Your task to perform on an android device: Search for a coffee table on IKEA Image 0: 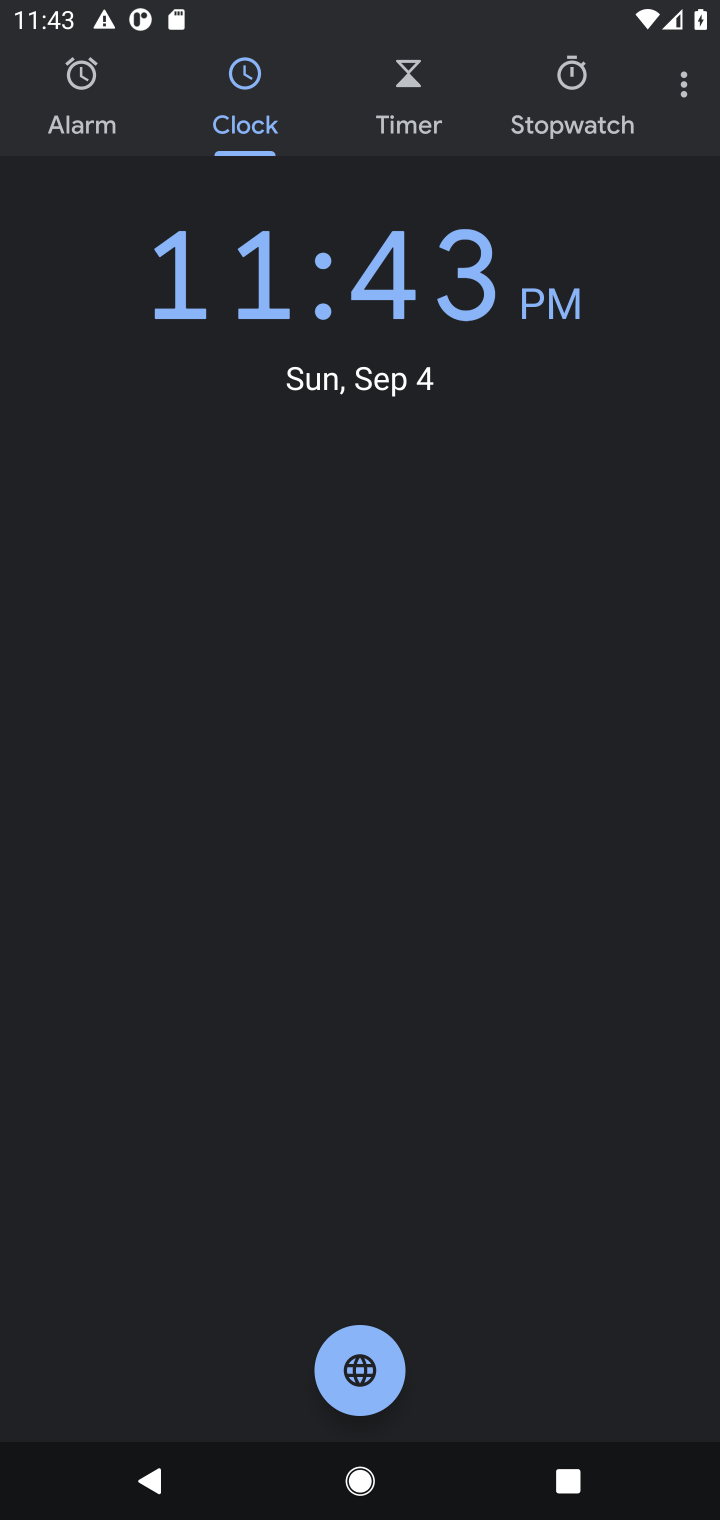
Step 0: press home button
Your task to perform on an android device: Search for a coffee table on IKEA Image 1: 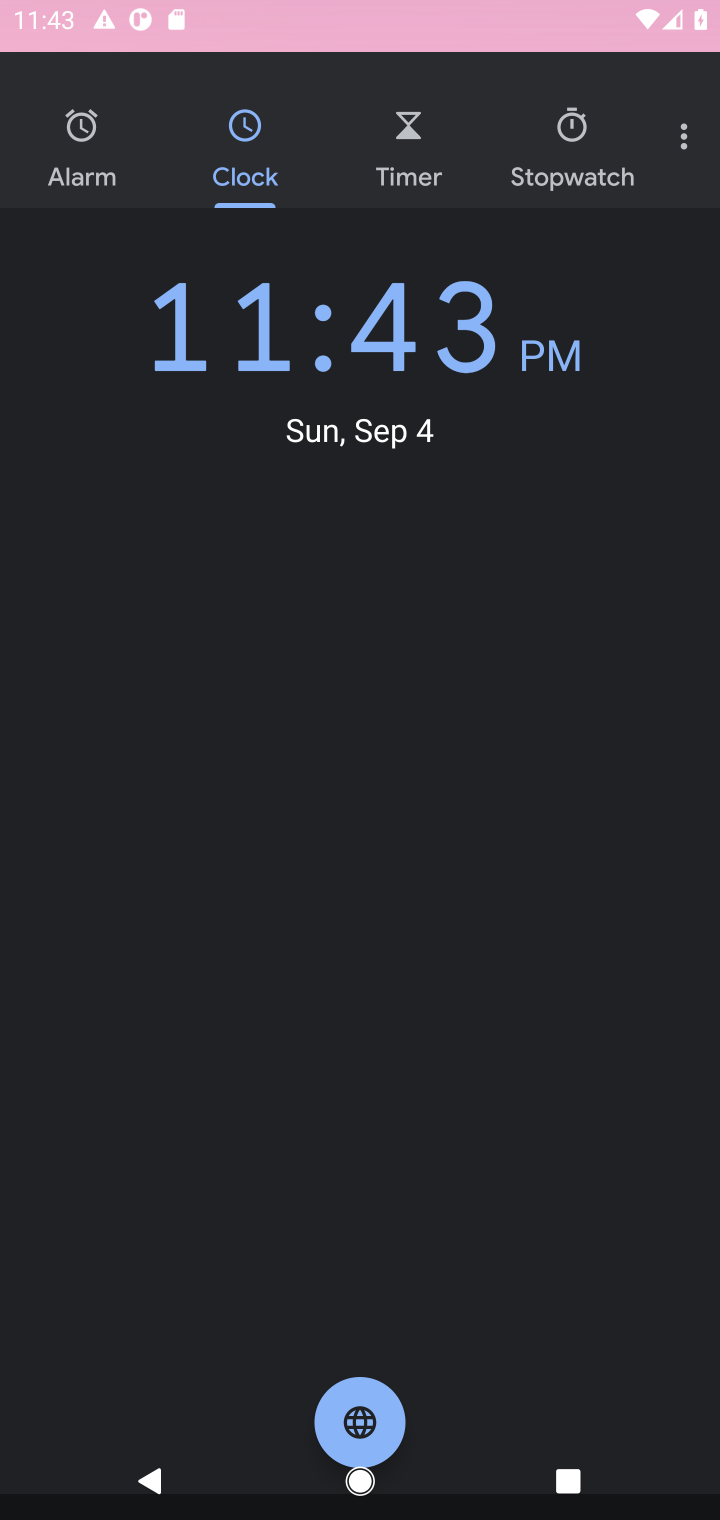
Step 1: press home button
Your task to perform on an android device: Search for a coffee table on IKEA Image 2: 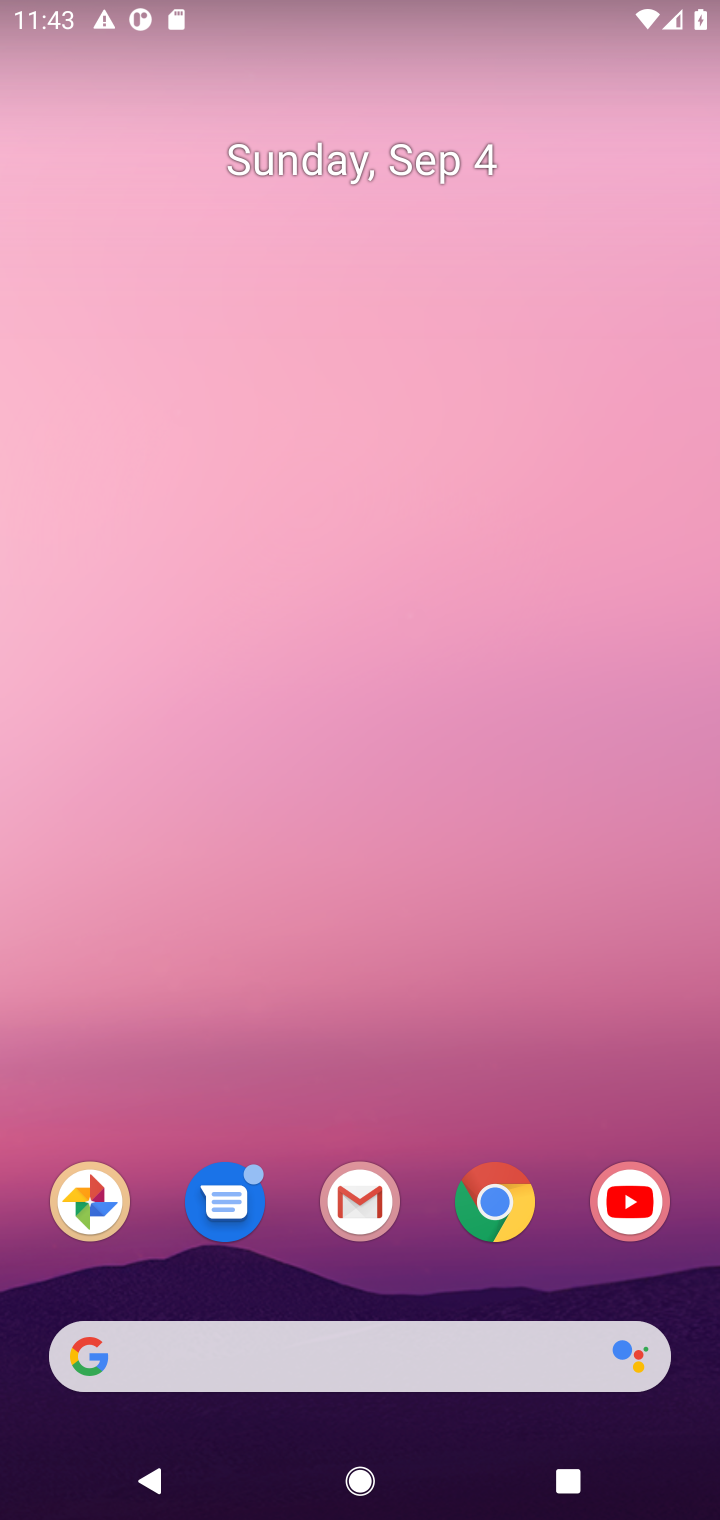
Step 2: click (469, 26)
Your task to perform on an android device: Search for a coffee table on IKEA Image 3: 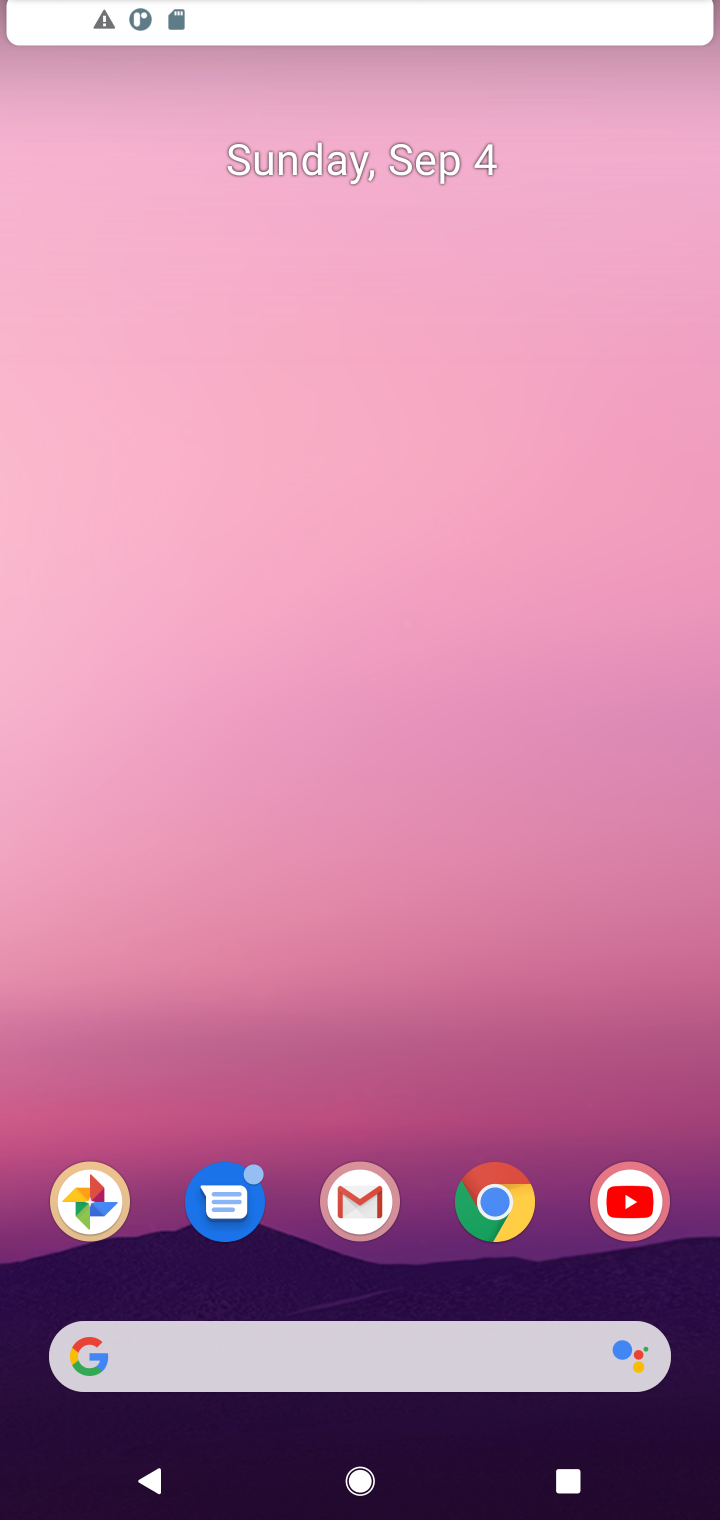
Step 3: click (432, 1284)
Your task to perform on an android device: Search for a coffee table on IKEA Image 4: 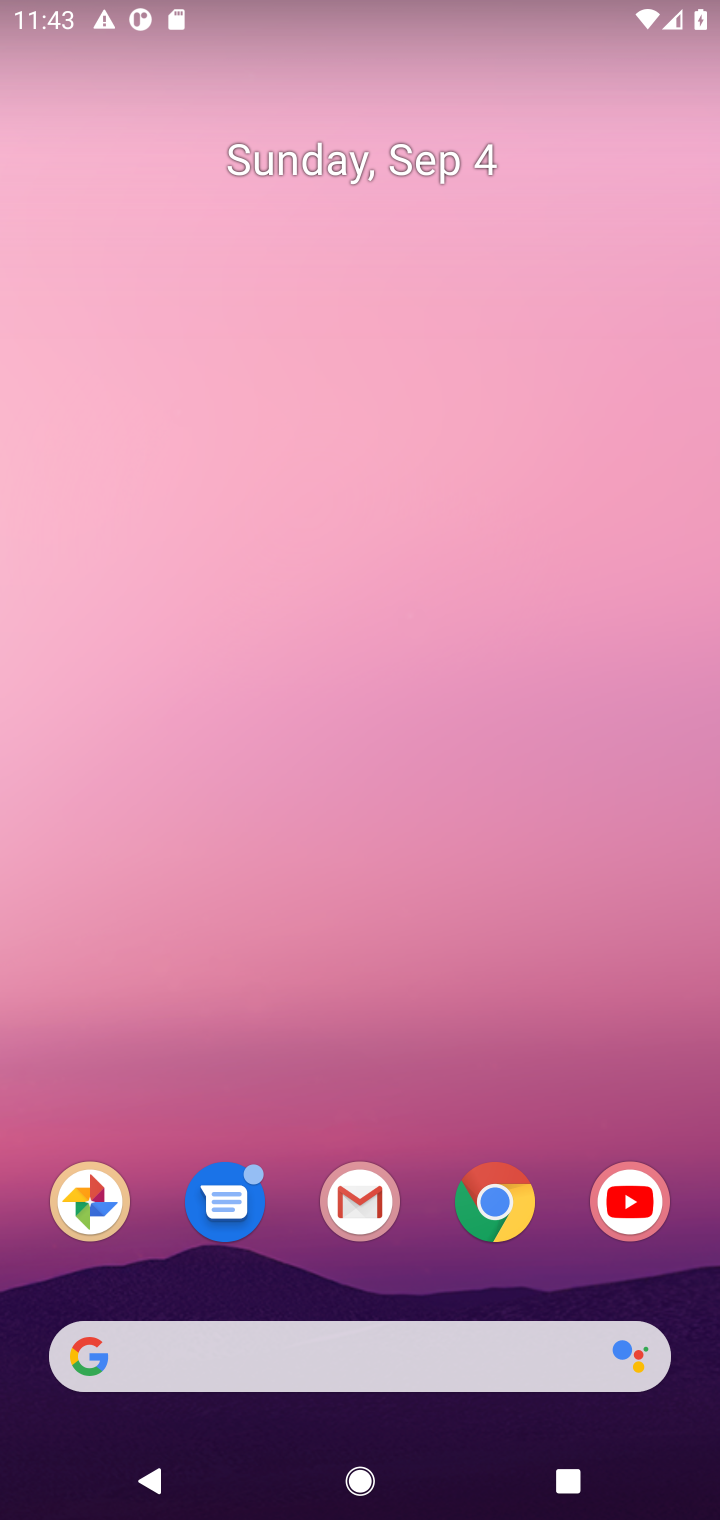
Step 4: drag from (431, 1284) to (492, 87)
Your task to perform on an android device: Search for a coffee table on IKEA Image 5: 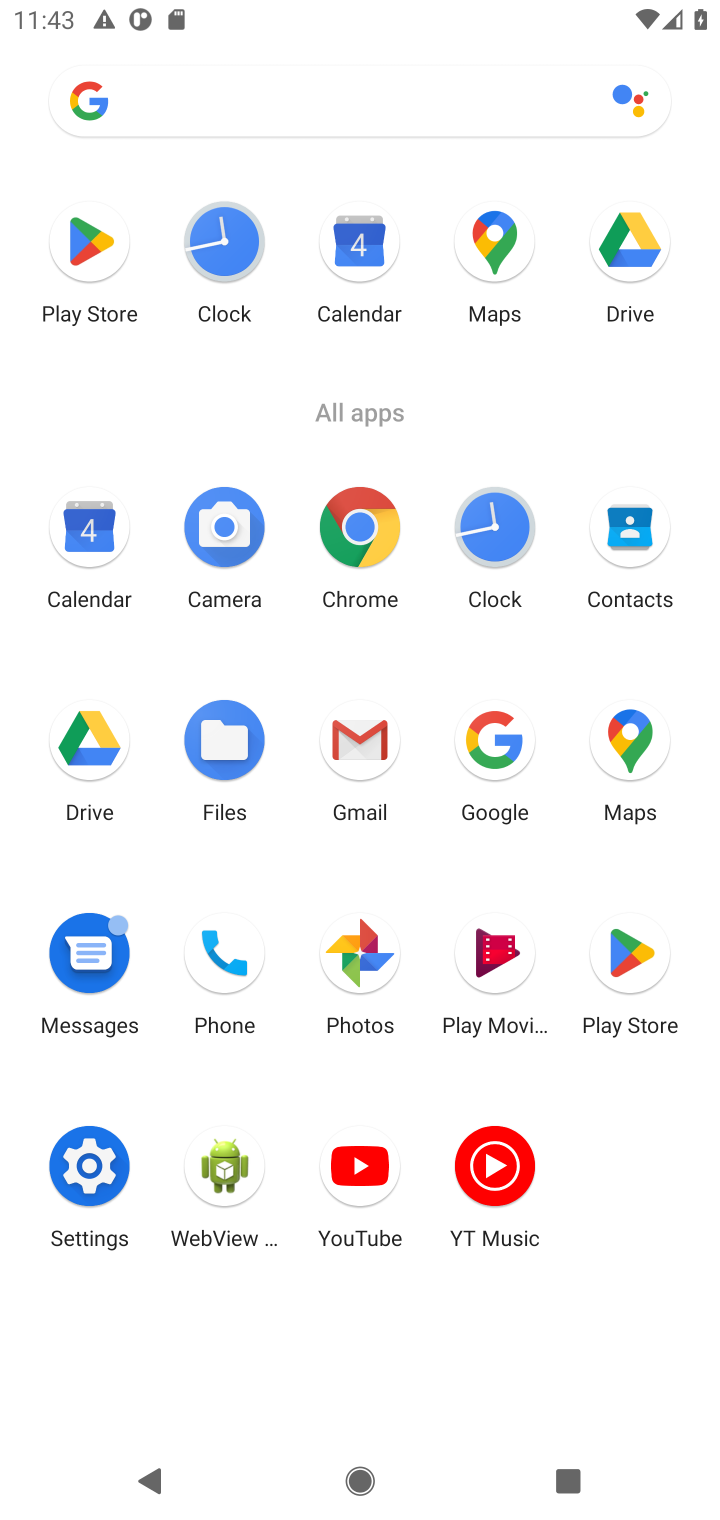
Step 5: click (358, 528)
Your task to perform on an android device: Search for a coffee table on IKEA Image 6: 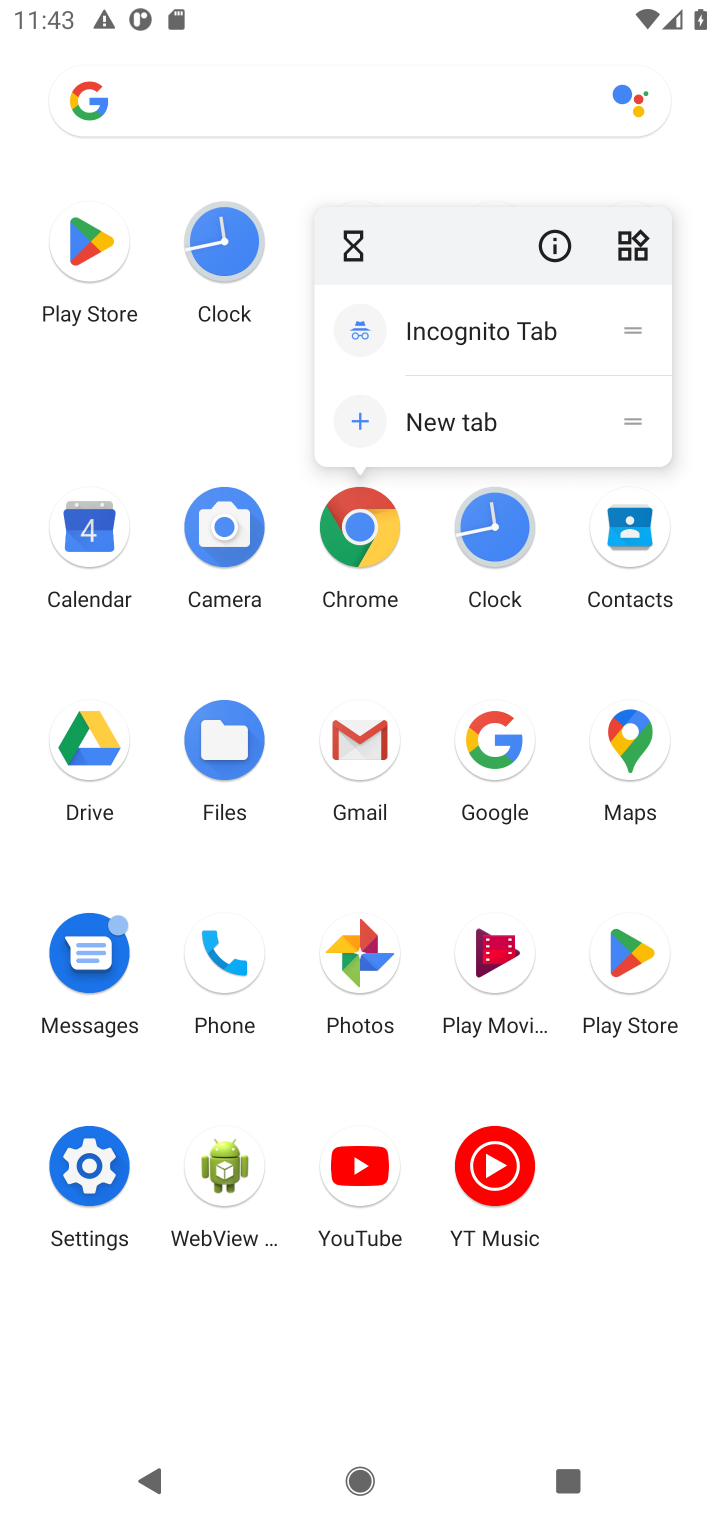
Step 6: click (355, 522)
Your task to perform on an android device: Search for a coffee table on IKEA Image 7: 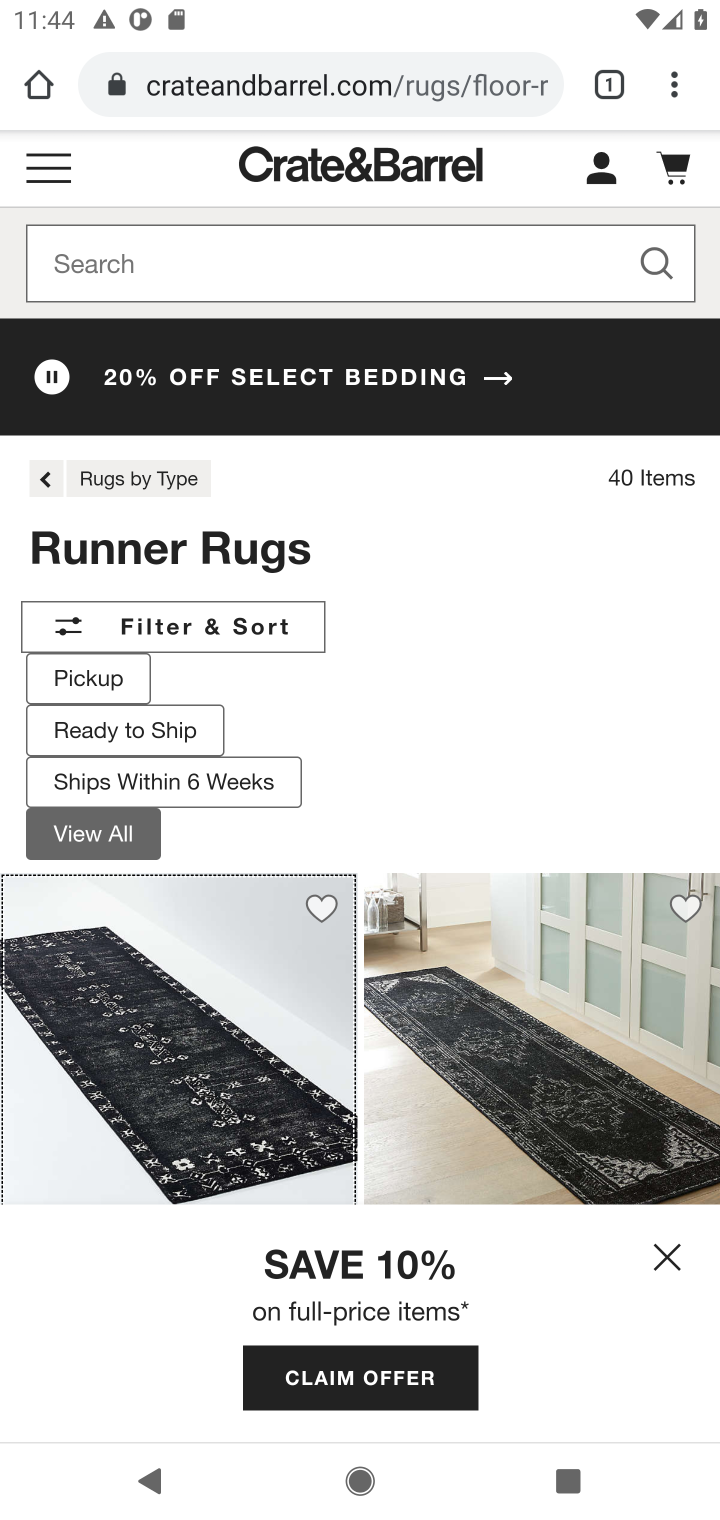
Step 7: click (382, 82)
Your task to perform on an android device: Search for a coffee table on IKEA Image 8: 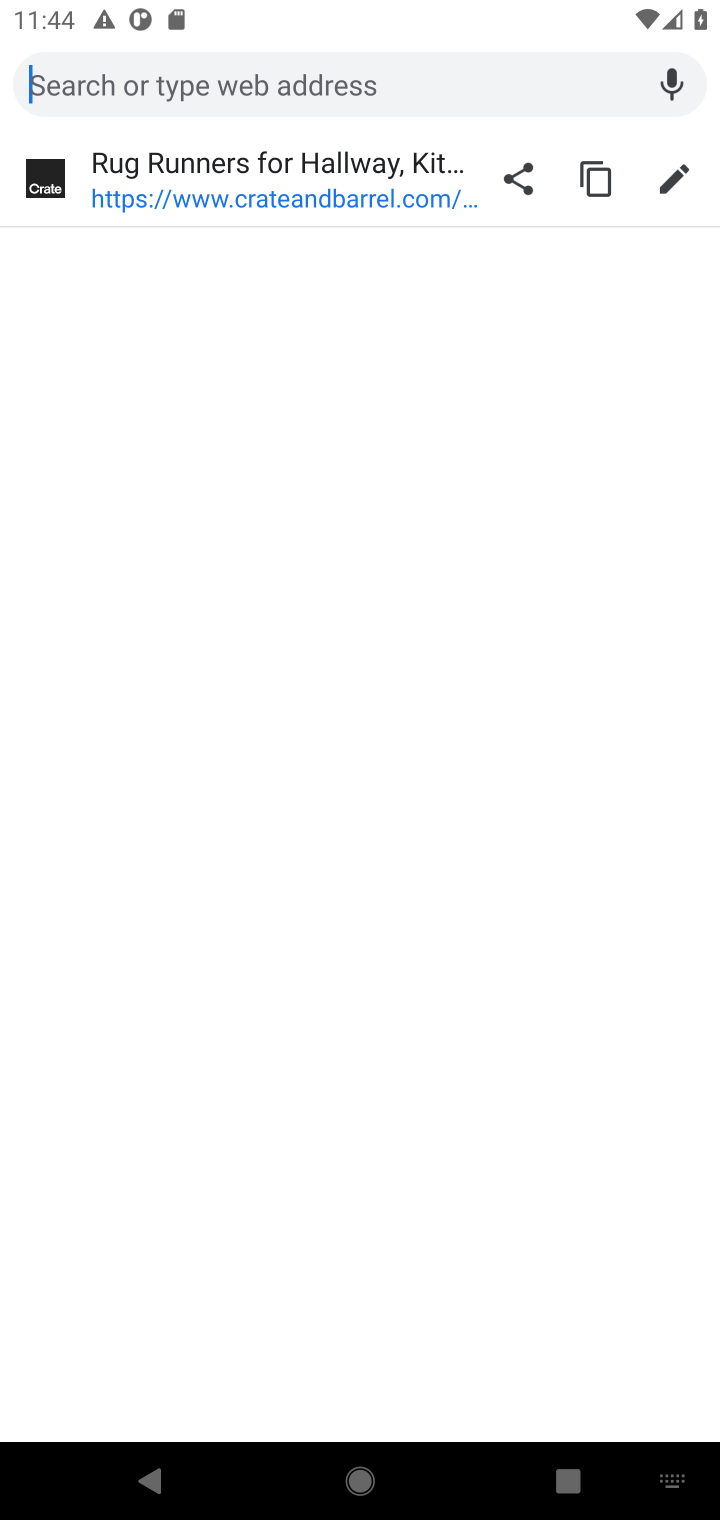
Step 8: press enter
Your task to perform on an android device: Search for a coffee table on IKEA Image 9: 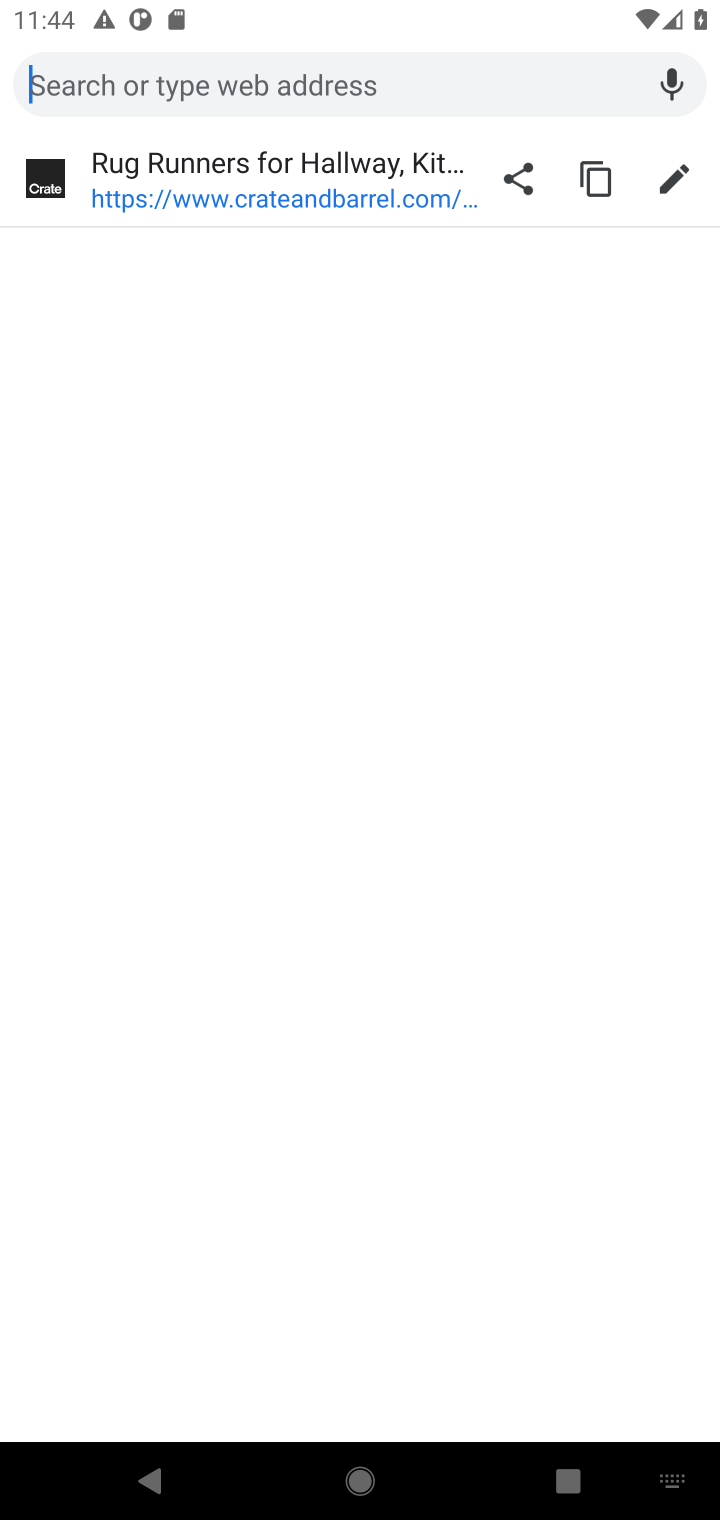
Step 9: type "a Coffee table on lKEA"
Your task to perform on an android device: Search for a coffee table on IKEA Image 10: 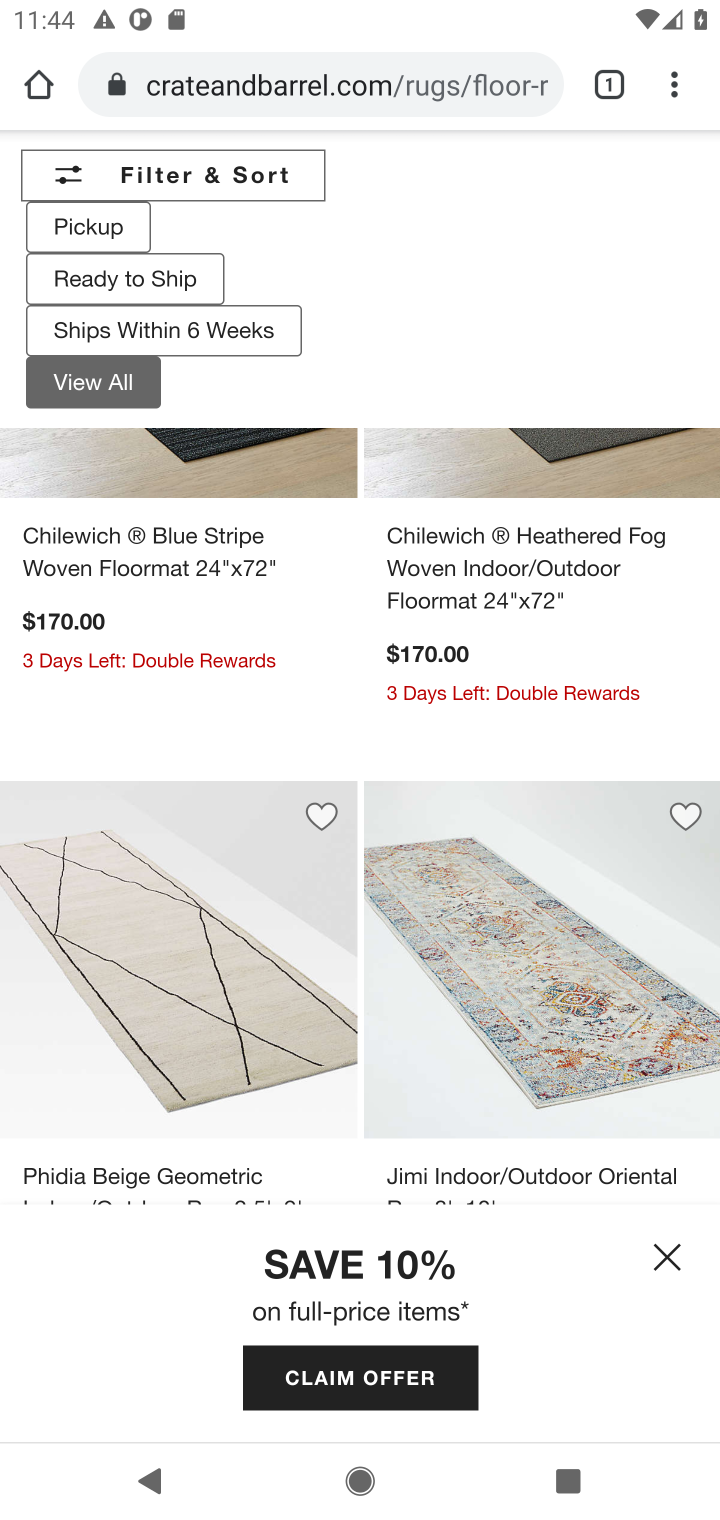
Step 10: drag from (380, 494) to (354, 1096)
Your task to perform on an android device: Search for a coffee table on IKEA Image 11: 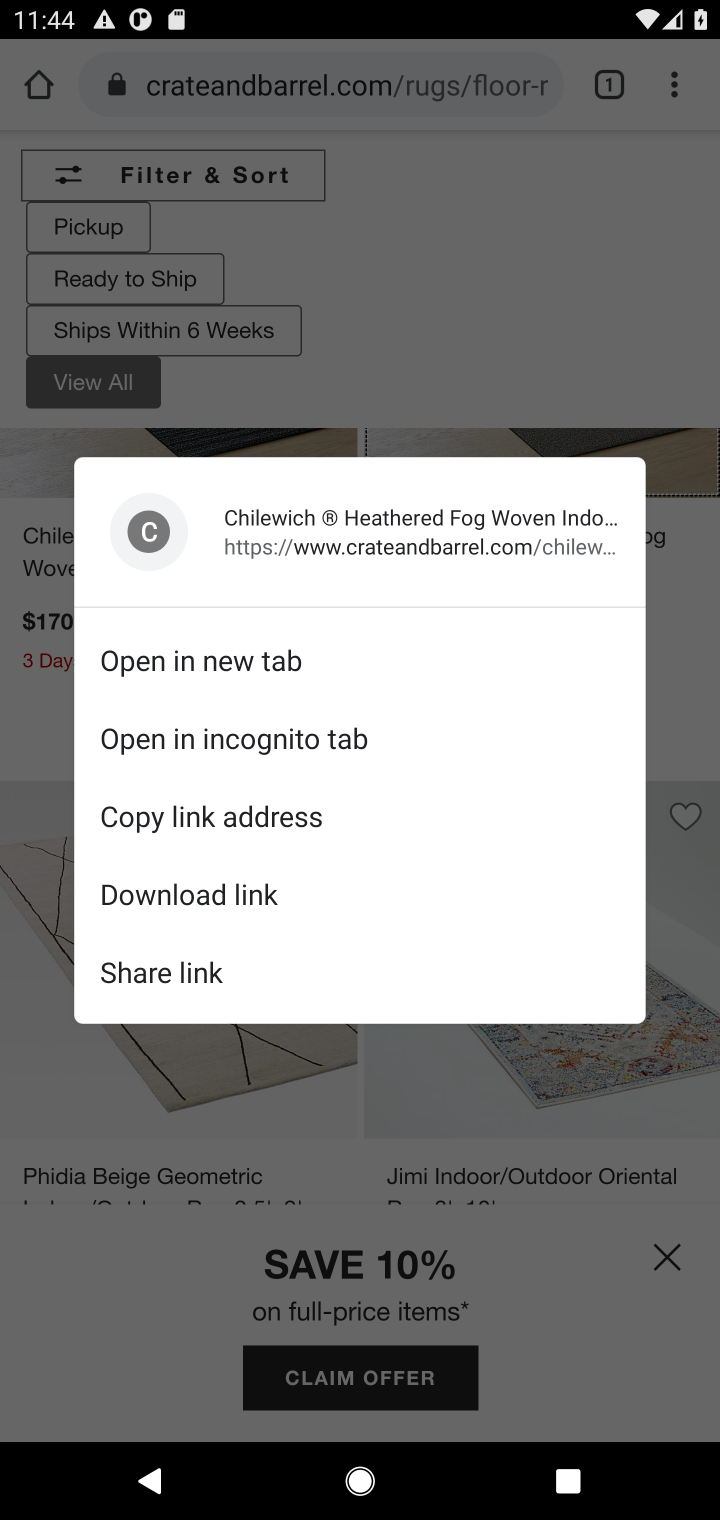
Step 11: click (395, 361)
Your task to perform on an android device: Search for a coffee table on IKEA Image 12: 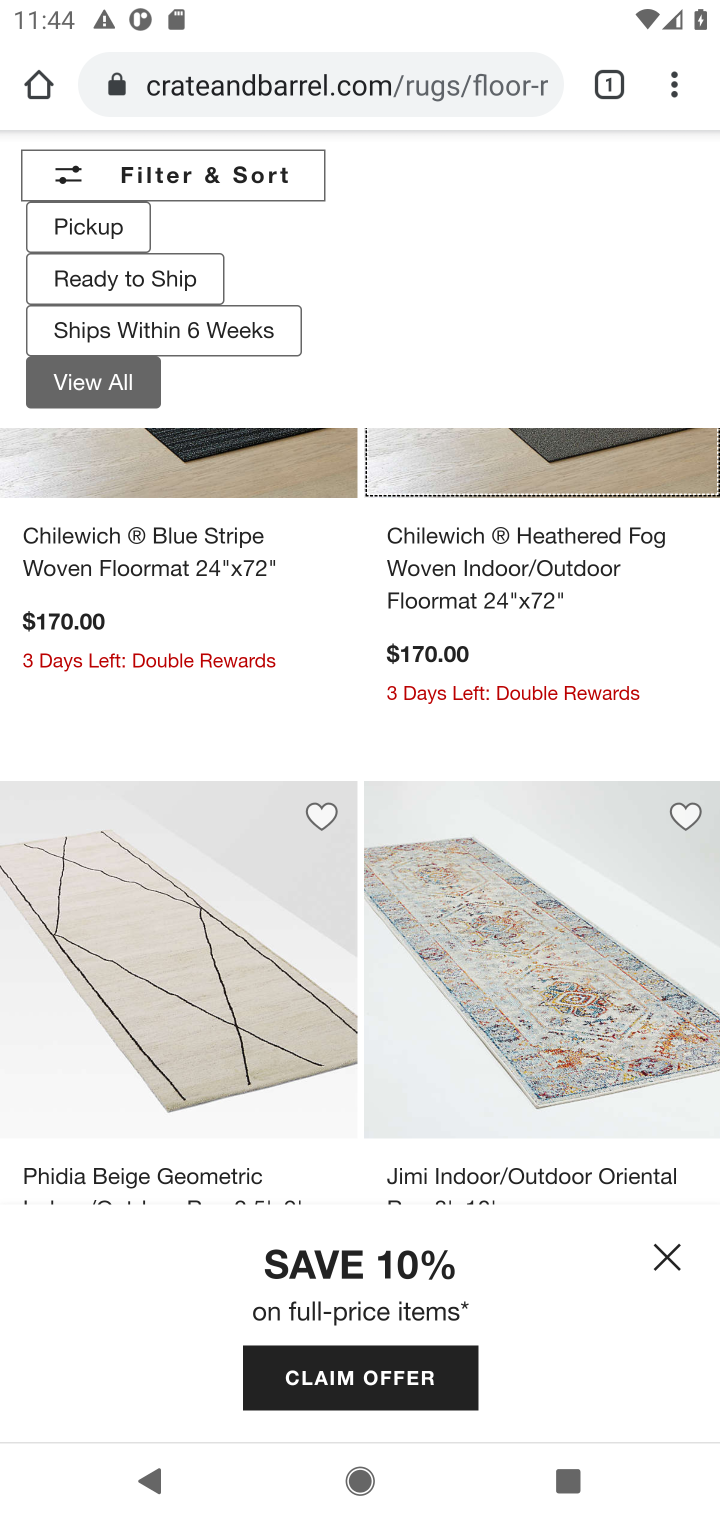
Step 12: click (408, 73)
Your task to perform on an android device: Search for a coffee table on IKEA Image 13: 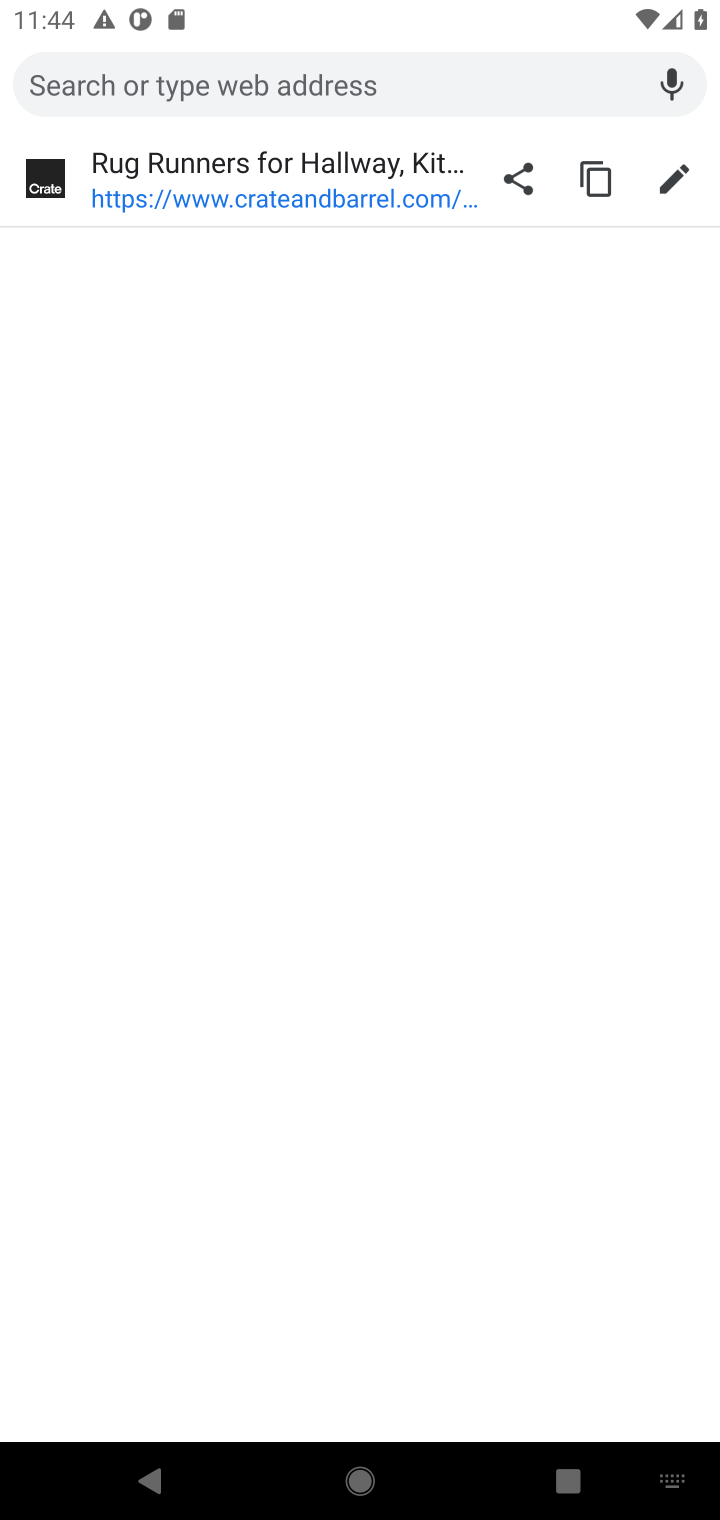
Step 13: type "A coffee table on lKEA"
Your task to perform on an android device: Search for a coffee table on IKEA Image 14: 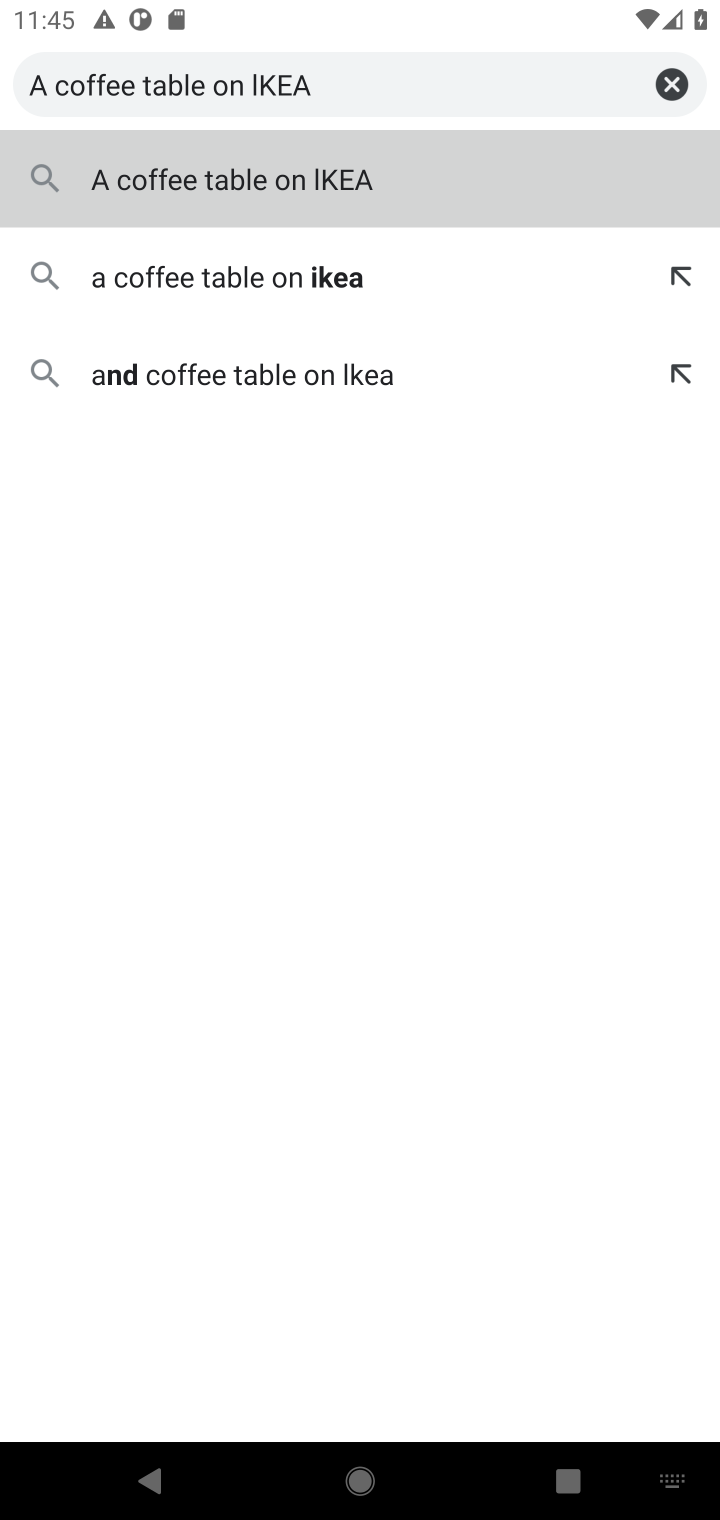
Step 14: press enter
Your task to perform on an android device: Search for a coffee table on IKEA Image 15: 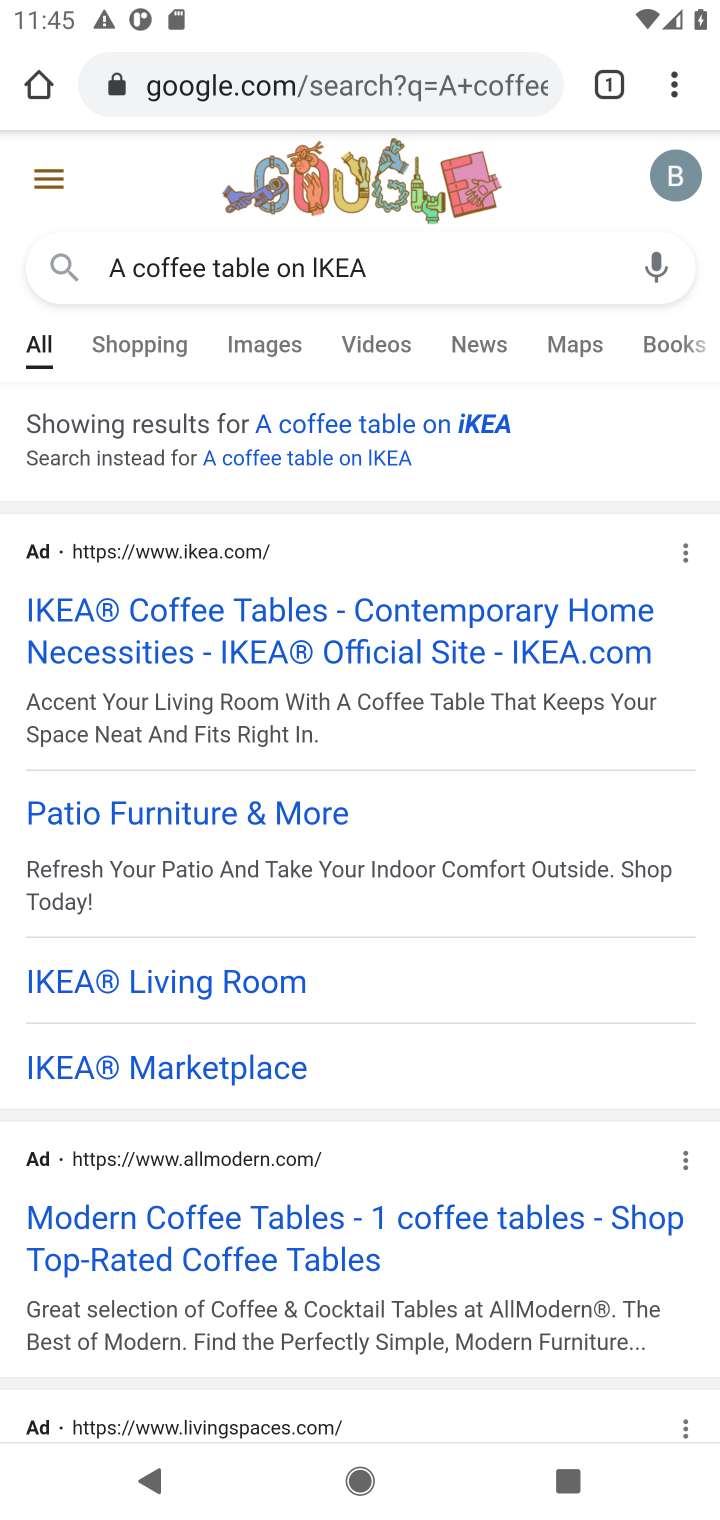
Step 15: drag from (506, 1081) to (567, 202)
Your task to perform on an android device: Search for a coffee table on IKEA Image 16: 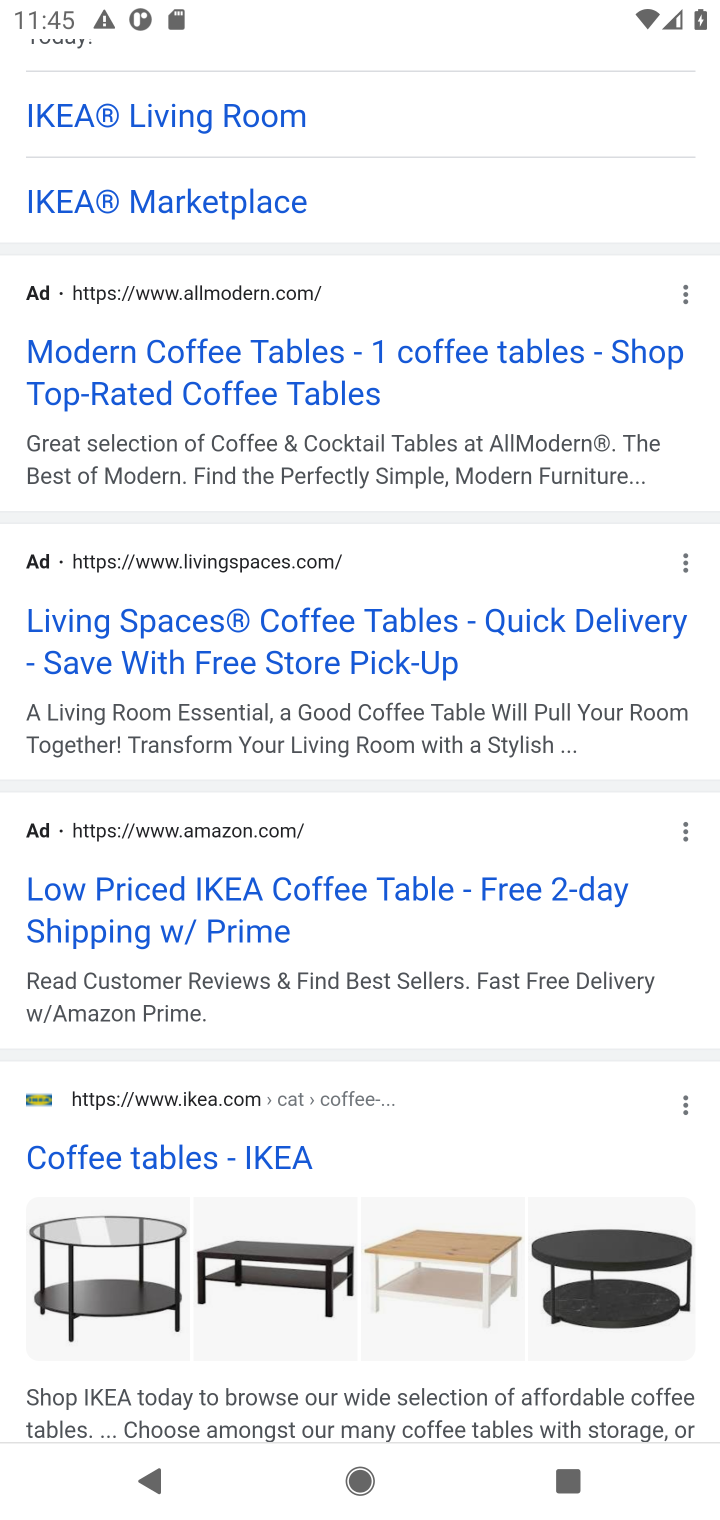
Step 16: drag from (509, 1147) to (509, 873)
Your task to perform on an android device: Search for a coffee table on IKEA Image 17: 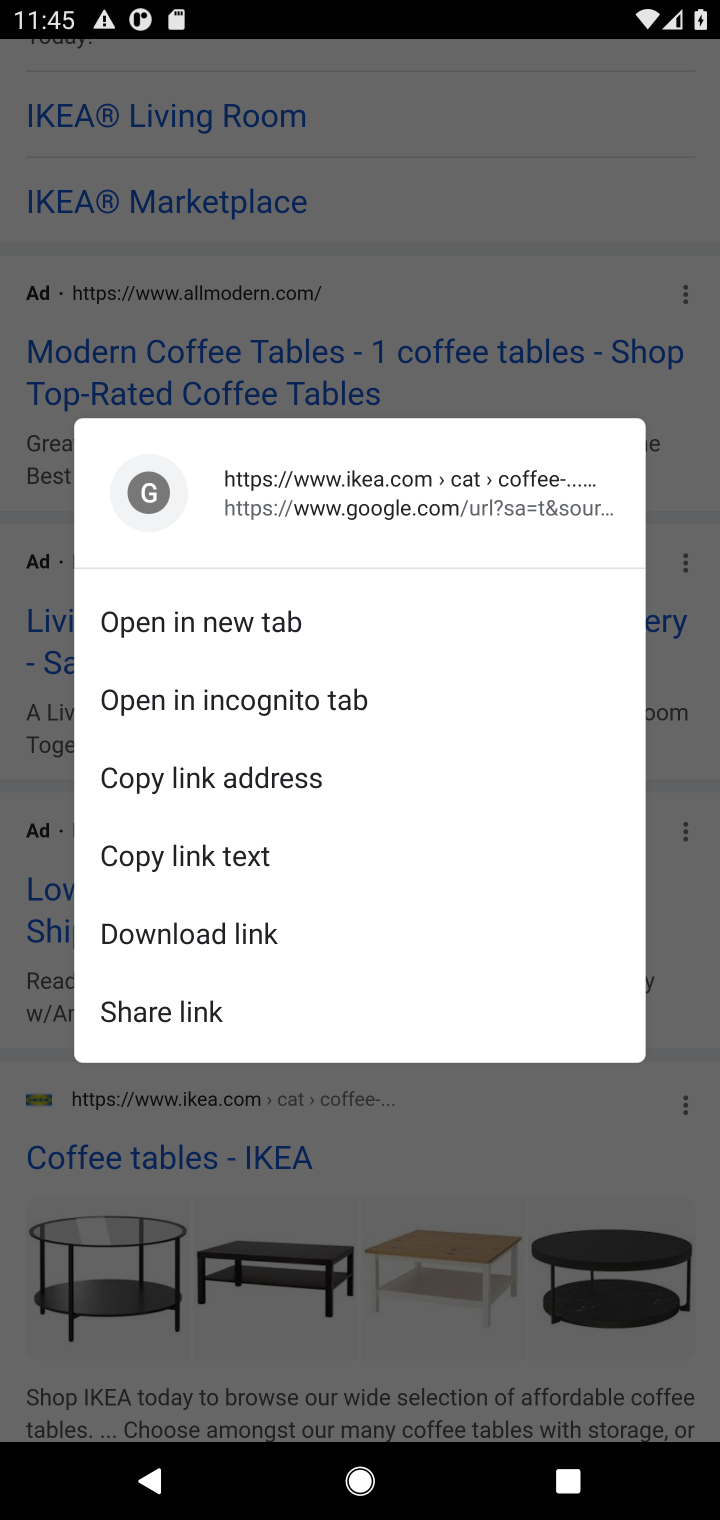
Step 17: click (193, 1148)
Your task to perform on an android device: Search for a coffee table on IKEA Image 18: 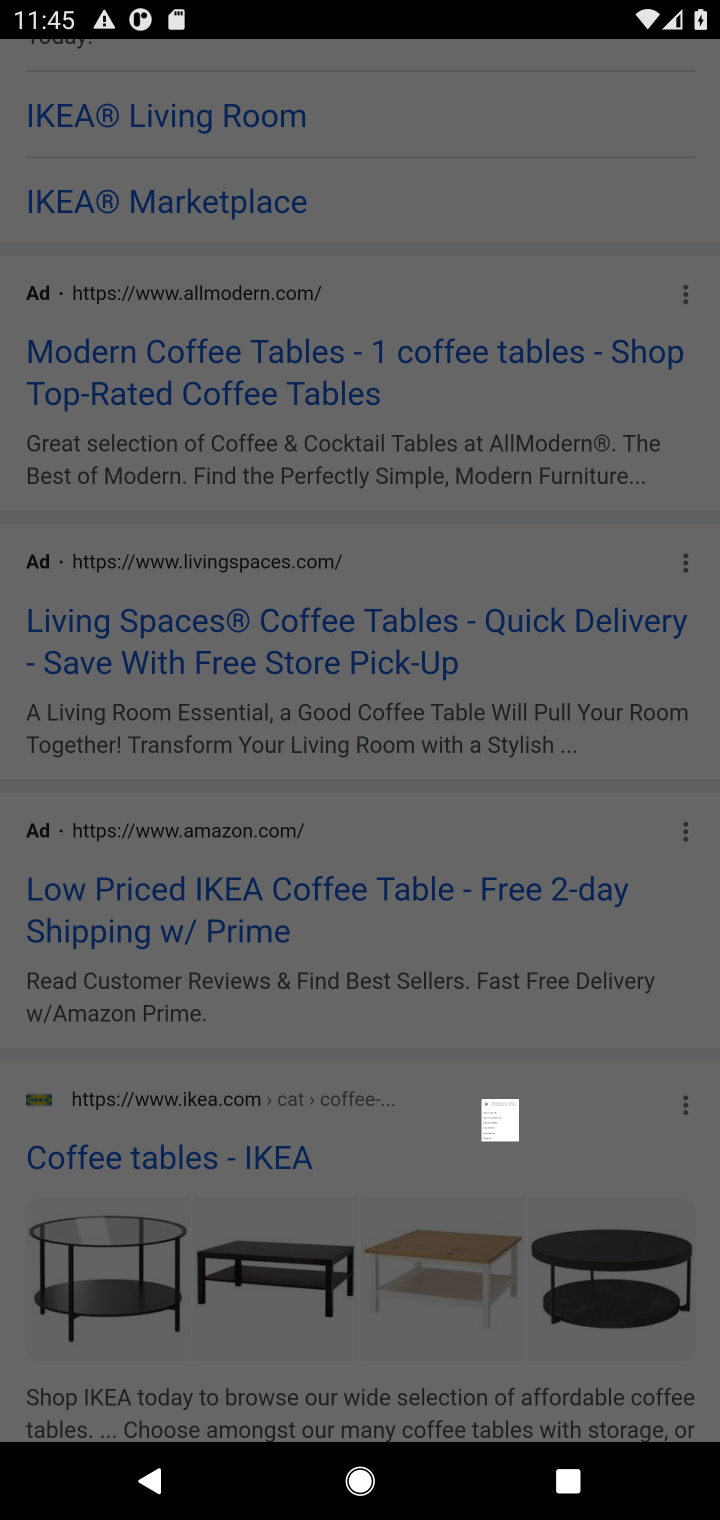
Step 18: click (193, 1148)
Your task to perform on an android device: Search for a coffee table on IKEA Image 19: 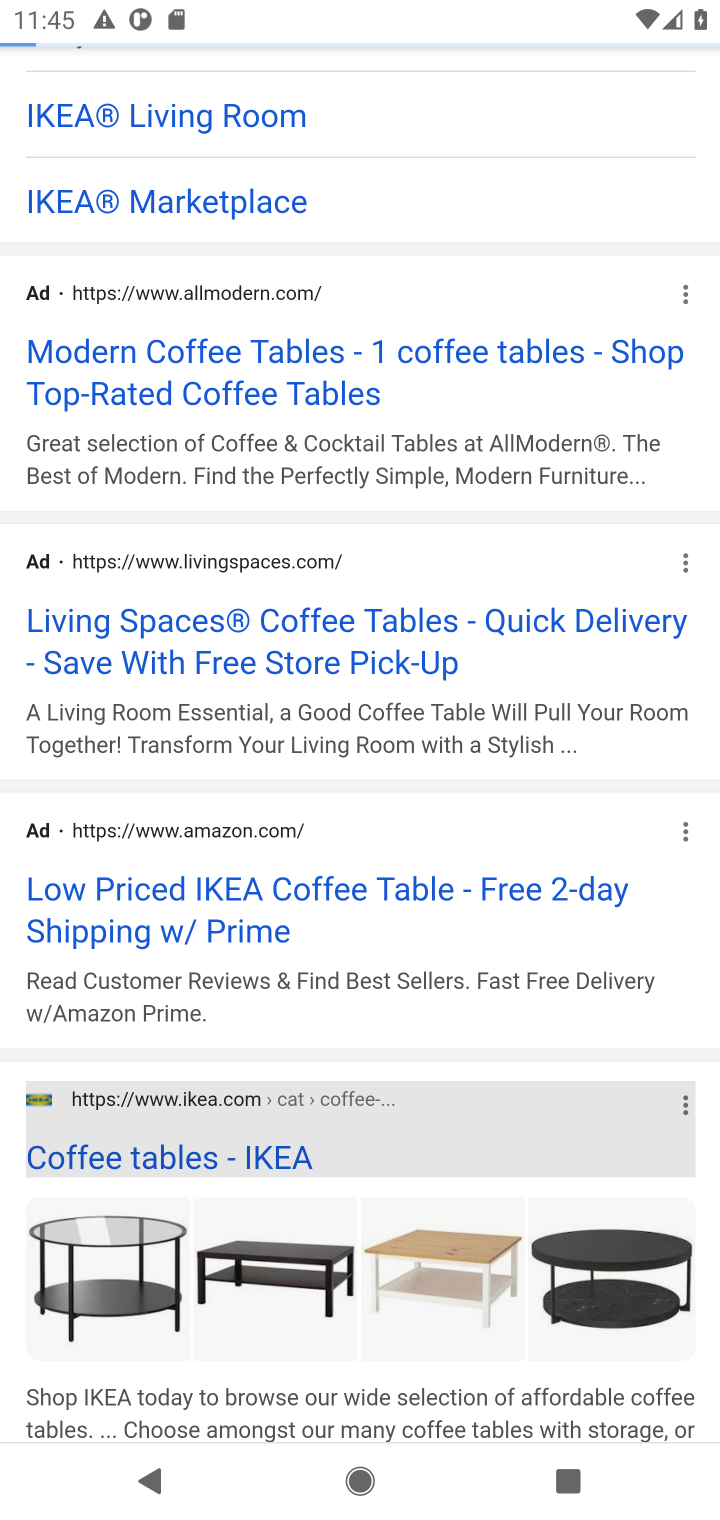
Step 19: click (193, 1148)
Your task to perform on an android device: Search for a coffee table on IKEA Image 20: 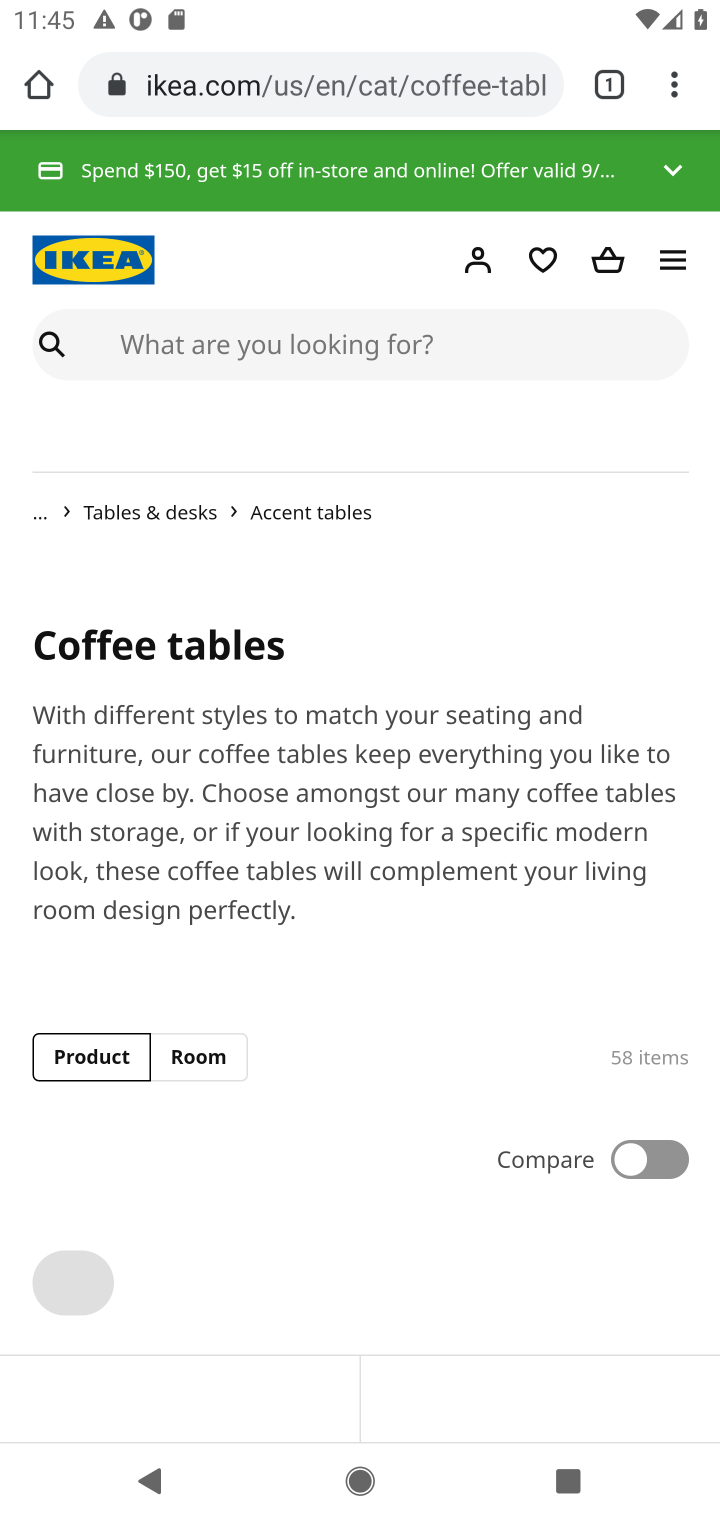
Step 20: task complete